Your task to perform on an android device: open chrome privacy settings Image 0: 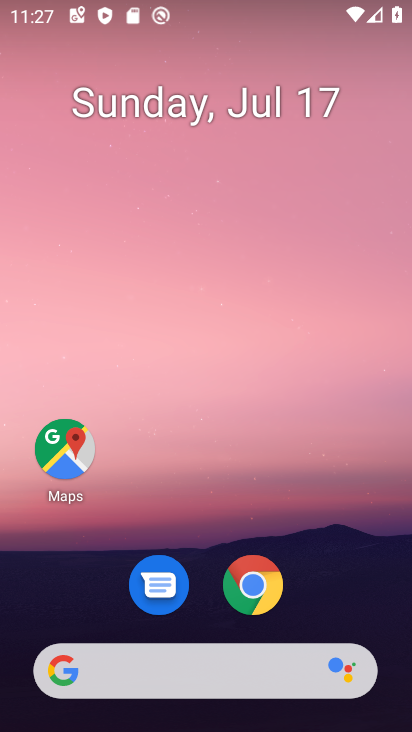
Step 0: click (273, 582)
Your task to perform on an android device: open chrome privacy settings Image 1: 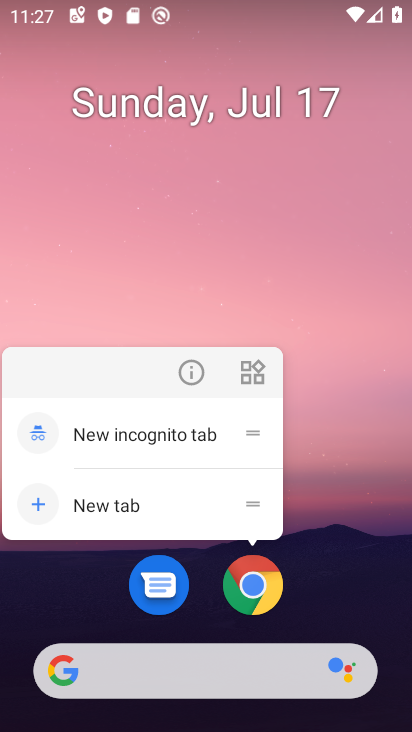
Step 1: click (273, 582)
Your task to perform on an android device: open chrome privacy settings Image 2: 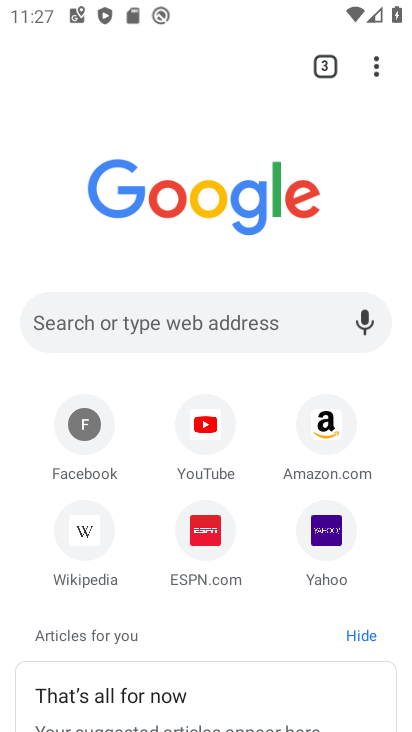
Step 2: click (376, 69)
Your task to perform on an android device: open chrome privacy settings Image 3: 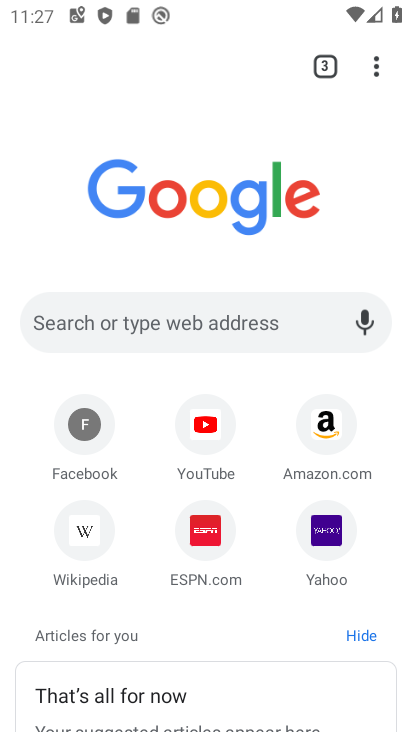
Step 3: click (376, 72)
Your task to perform on an android device: open chrome privacy settings Image 4: 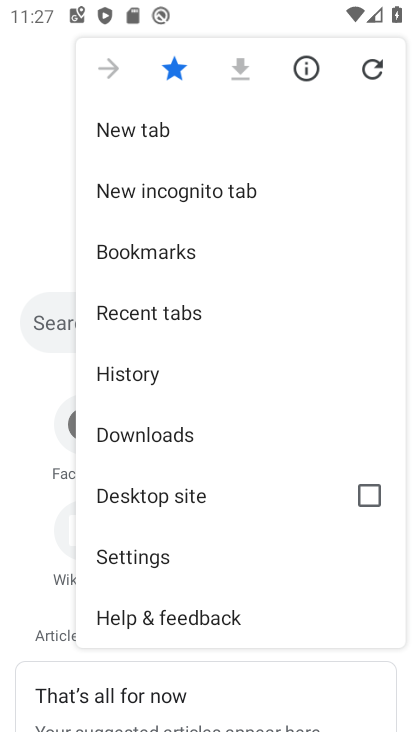
Step 4: click (184, 554)
Your task to perform on an android device: open chrome privacy settings Image 5: 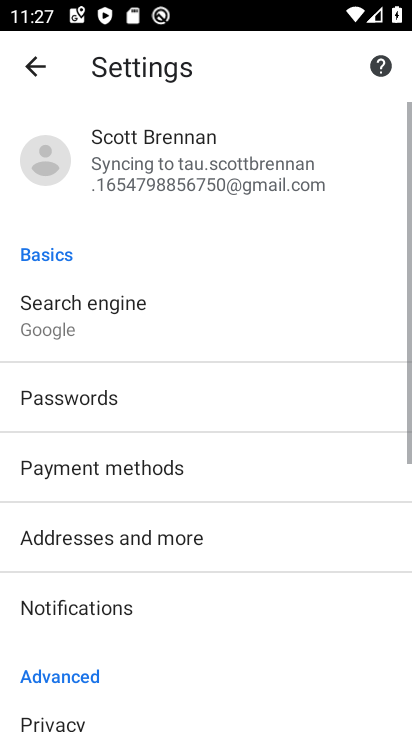
Step 5: drag from (184, 536) to (216, 76)
Your task to perform on an android device: open chrome privacy settings Image 6: 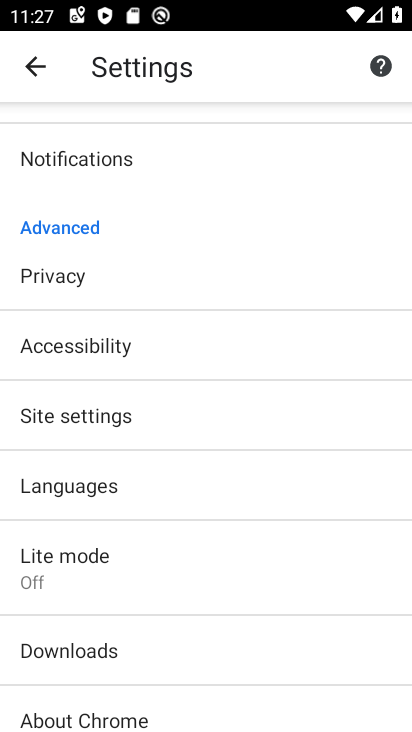
Step 6: click (79, 289)
Your task to perform on an android device: open chrome privacy settings Image 7: 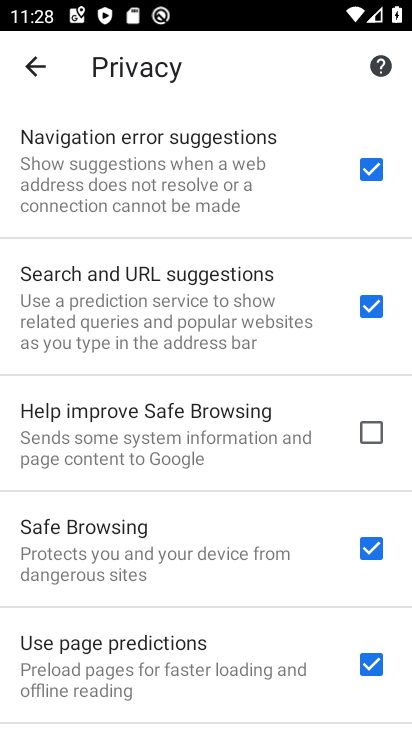
Step 7: task complete